Your task to perform on an android device: Go to privacy settings Image 0: 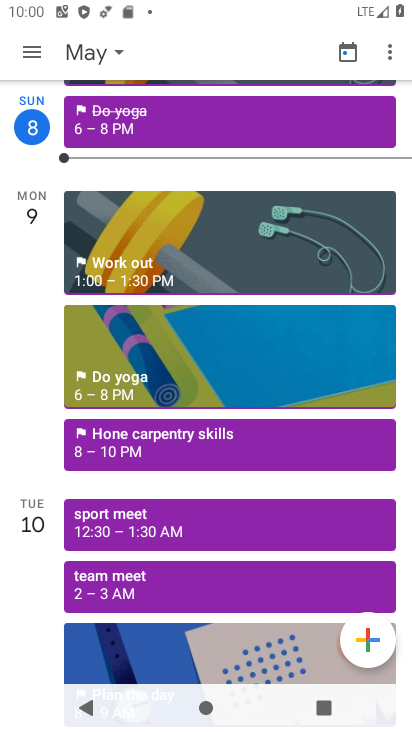
Step 0: press back button
Your task to perform on an android device: Go to privacy settings Image 1: 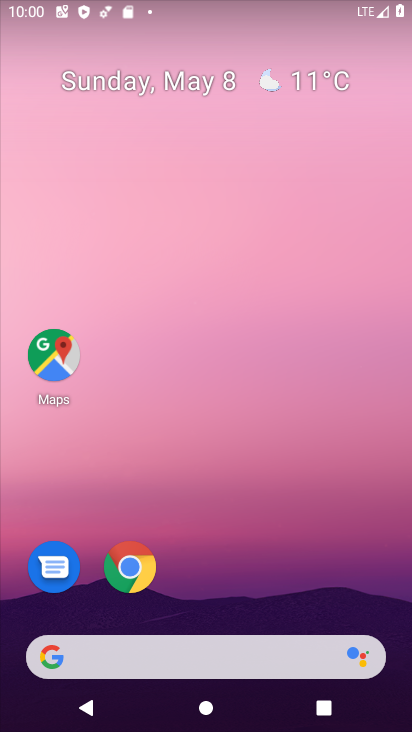
Step 1: click (126, 570)
Your task to perform on an android device: Go to privacy settings Image 2: 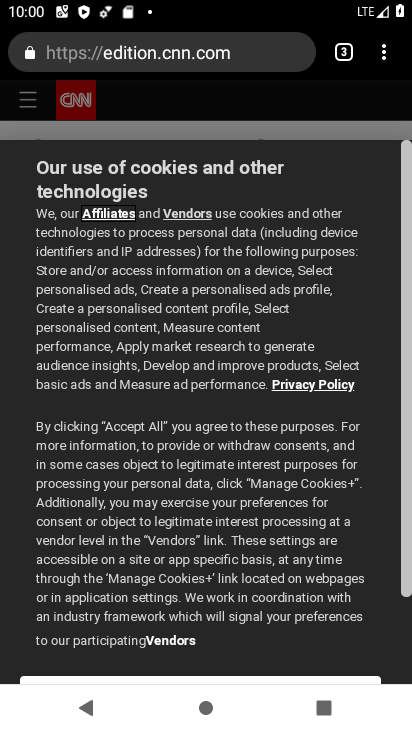
Step 2: drag from (394, 43) to (220, 647)
Your task to perform on an android device: Go to privacy settings Image 3: 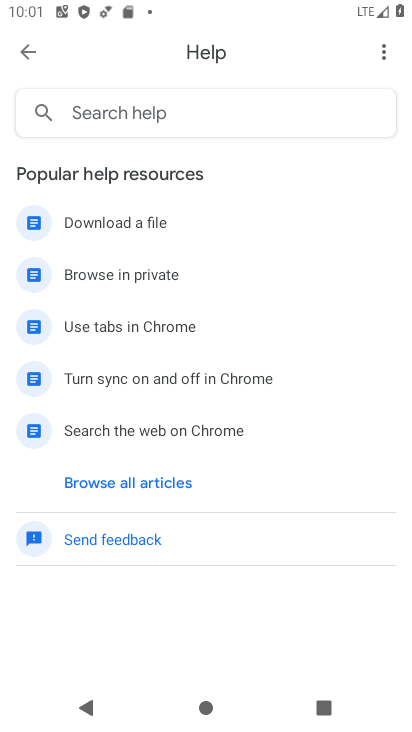
Step 3: press back button
Your task to perform on an android device: Go to privacy settings Image 4: 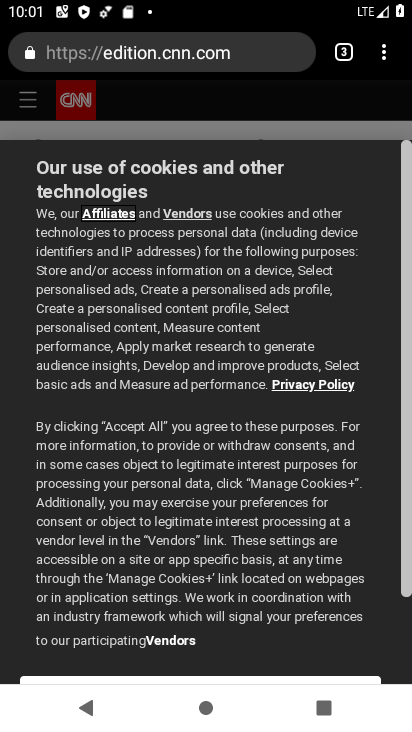
Step 4: drag from (392, 44) to (215, 629)
Your task to perform on an android device: Go to privacy settings Image 5: 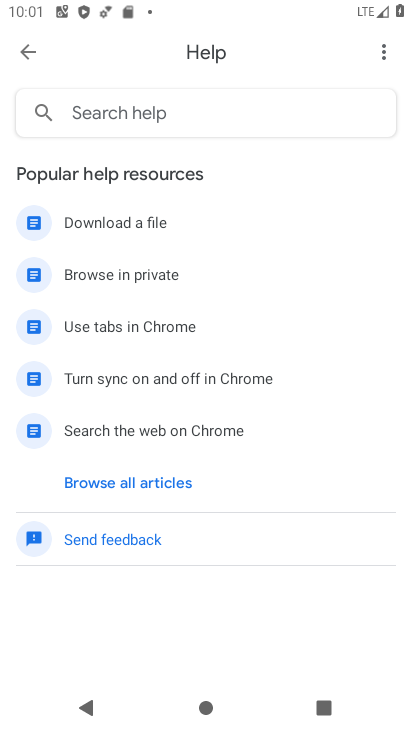
Step 5: press back button
Your task to perform on an android device: Go to privacy settings Image 6: 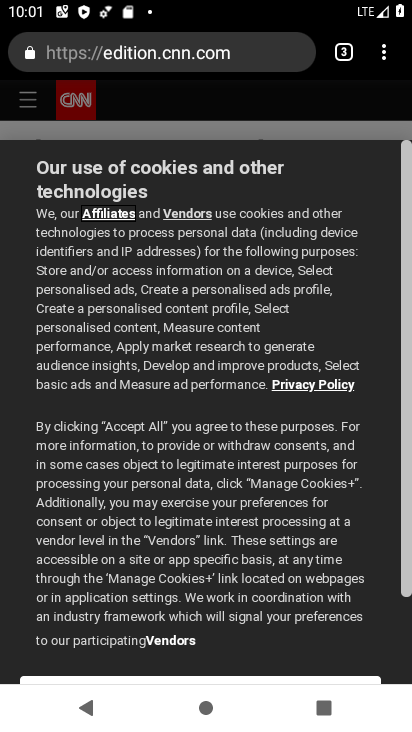
Step 6: drag from (395, 51) to (205, 583)
Your task to perform on an android device: Go to privacy settings Image 7: 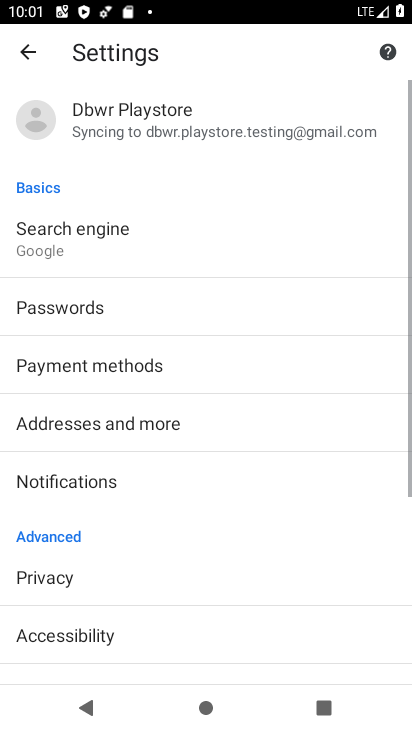
Step 7: drag from (205, 568) to (298, 133)
Your task to perform on an android device: Go to privacy settings Image 8: 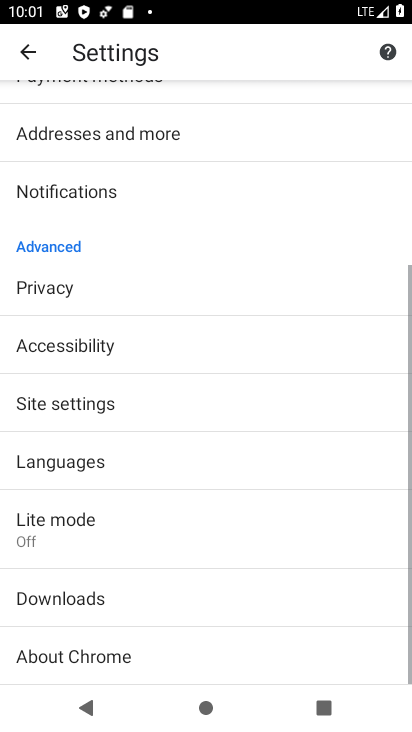
Step 8: click (39, 277)
Your task to perform on an android device: Go to privacy settings Image 9: 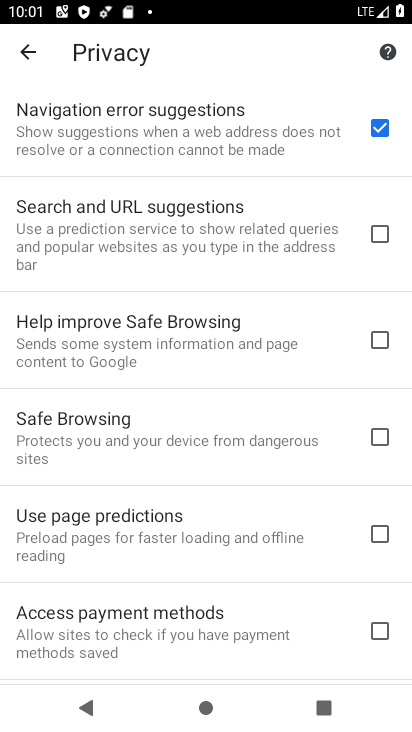
Step 9: task complete